Your task to perform on an android device: open a bookmark in the chrome app Image 0: 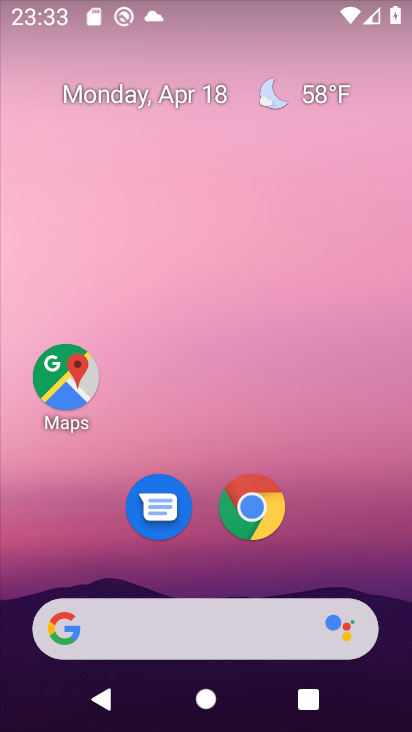
Step 0: click (250, 515)
Your task to perform on an android device: open a bookmark in the chrome app Image 1: 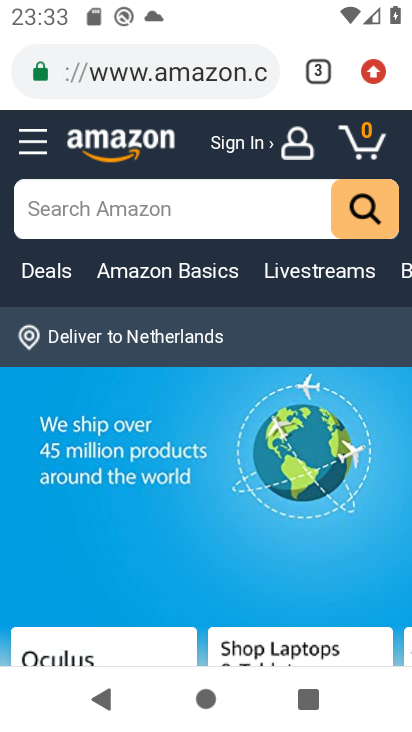
Step 1: click (373, 74)
Your task to perform on an android device: open a bookmark in the chrome app Image 2: 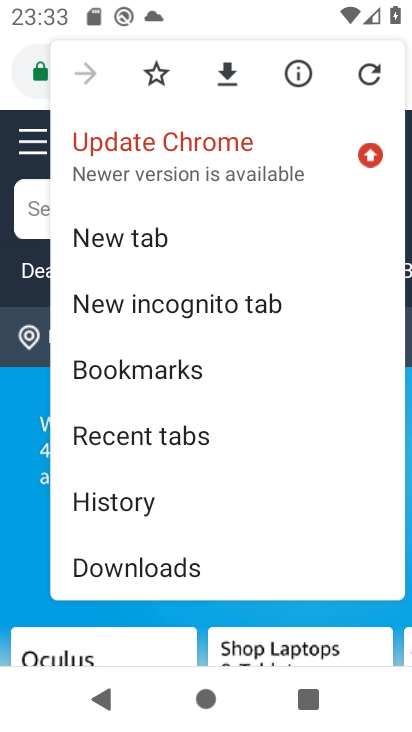
Step 2: click (176, 365)
Your task to perform on an android device: open a bookmark in the chrome app Image 3: 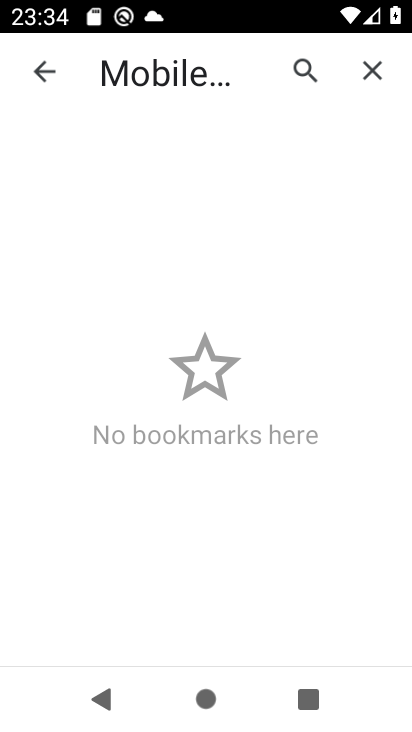
Step 3: click (35, 61)
Your task to perform on an android device: open a bookmark in the chrome app Image 4: 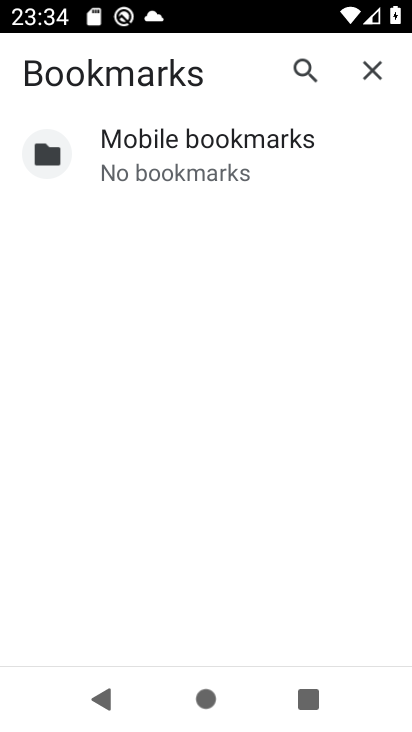
Step 4: click (372, 62)
Your task to perform on an android device: open a bookmark in the chrome app Image 5: 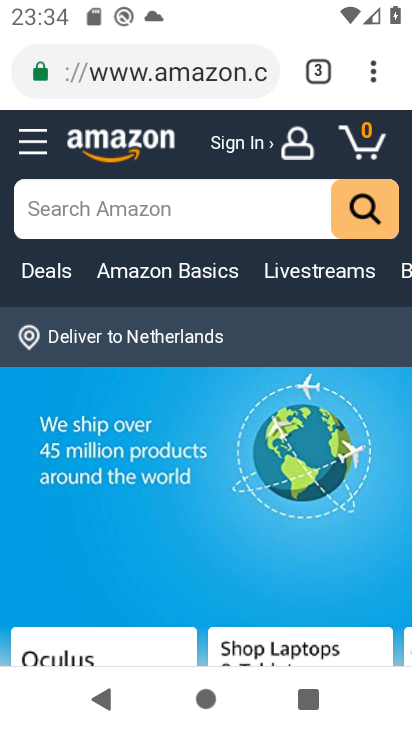
Step 5: click (374, 74)
Your task to perform on an android device: open a bookmark in the chrome app Image 6: 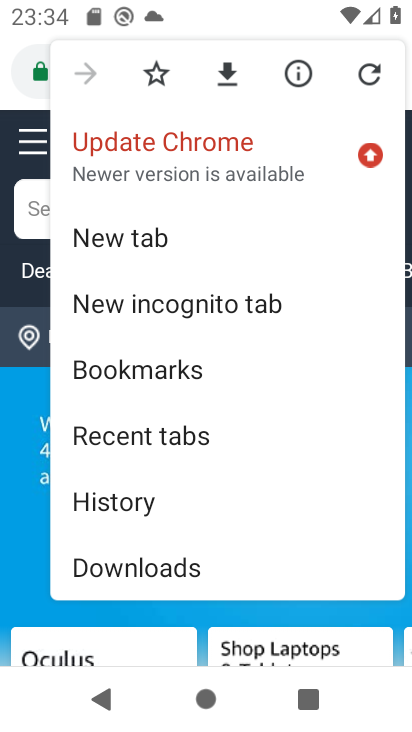
Step 6: click (144, 241)
Your task to perform on an android device: open a bookmark in the chrome app Image 7: 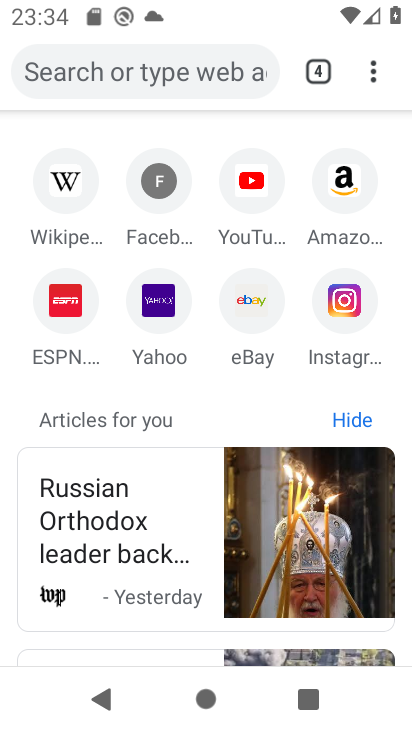
Step 7: click (122, 238)
Your task to perform on an android device: open a bookmark in the chrome app Image 8: 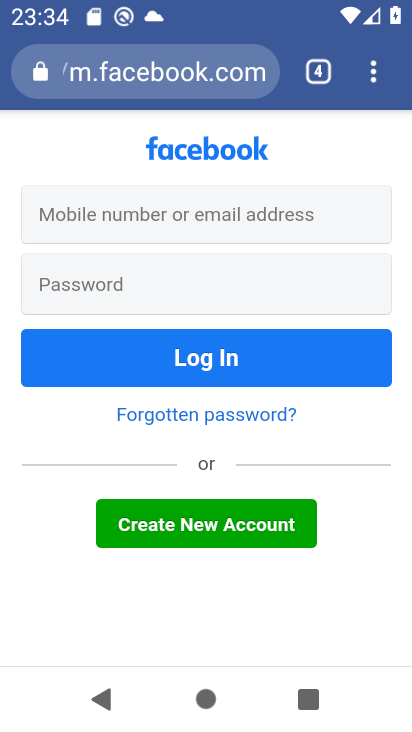
Step 8: task complete